Your task to perform on an android device: check google app version Image 0: 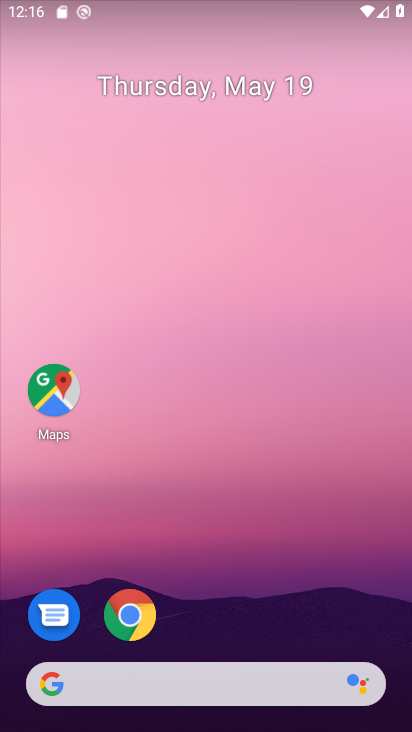
Step 0: drag from (236, 715) to (368, 0)
Your task to perform on an android device: check google app version Image 1: 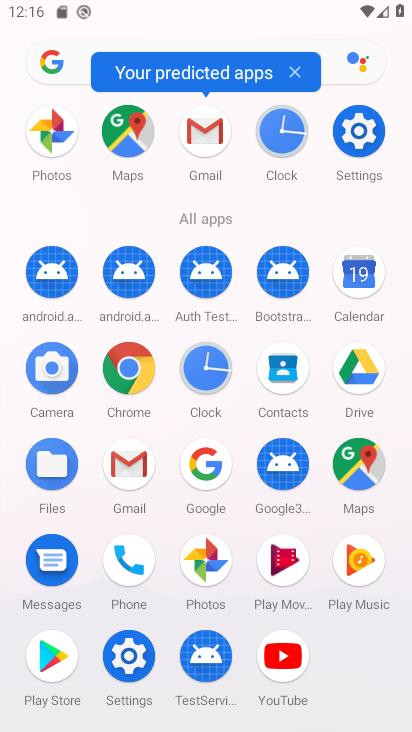
Step 1: click (124, 363)
Your task to perform on an android device: check google app version Image 2: 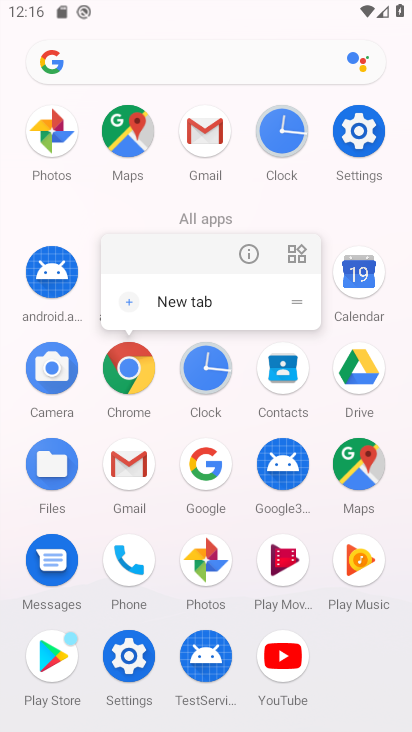
Step 2: click (129, 381)
Your task to perform on an android device: check google app version Image 3: 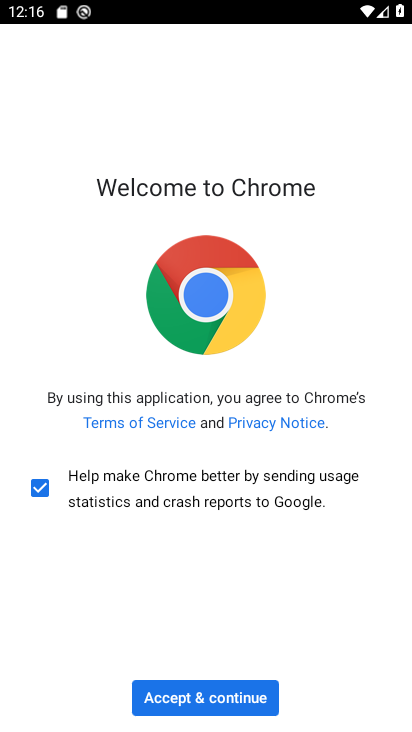
Step 3: click (202, 693)
Your task to perform on an android device: check google app version Image 4: 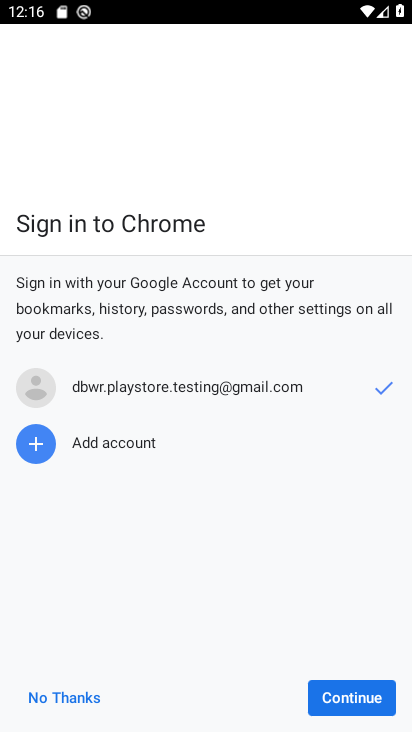
Step 4: click (352, 708)
Your task to perform on an android device: check google app version Image 5: 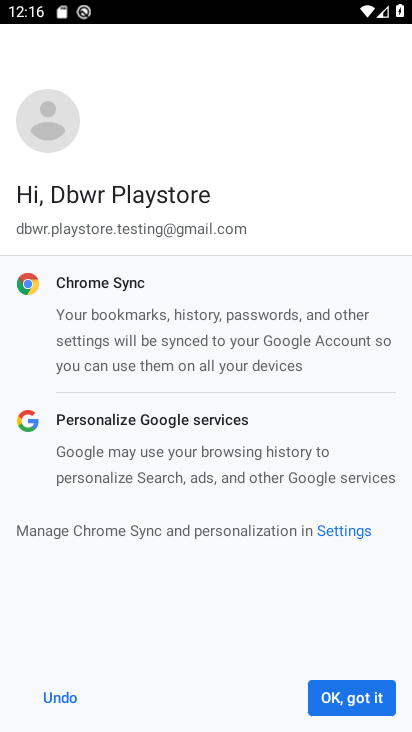
Step 5: click (348, 698)
Your task to perform on an android device: check google app version Image 6: 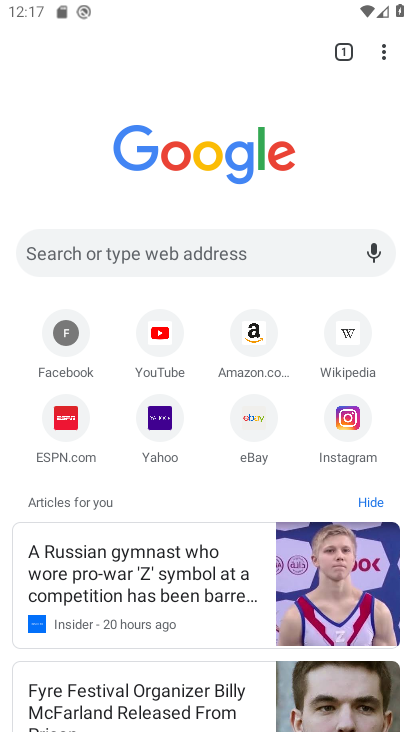
Step 6: click (387, 62)
Your task to perform on an android device: check google app version Image 7: 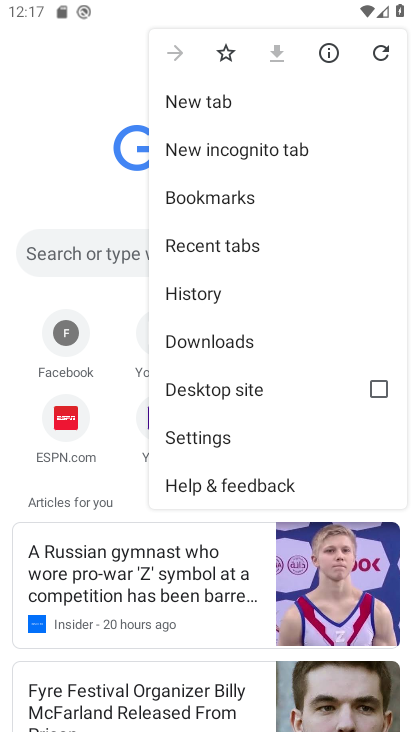
Step 7: click (198, 430)
Your task to perform on an android device: check google app version Image 8: 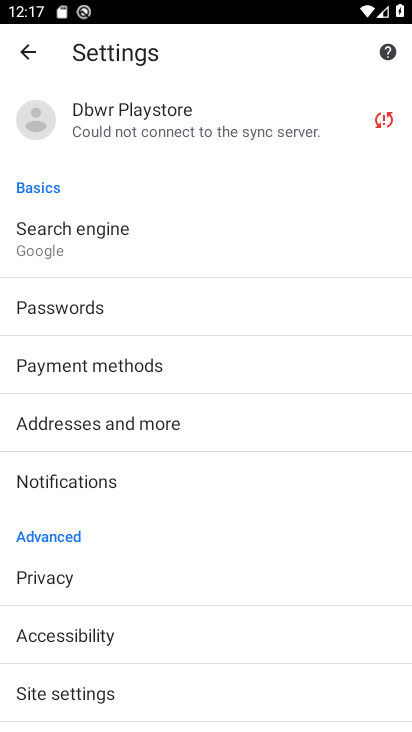
Step 8: drag from (135, 564) to (204, 160)
Your task to perform on an android device: check google app version Image 9: 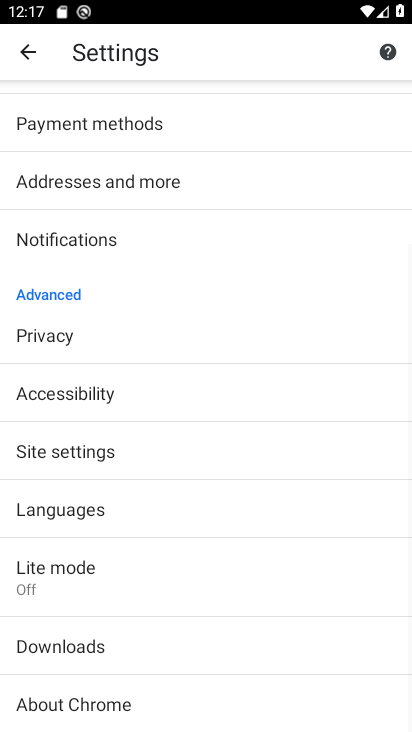
Step 9: drag from (95, 482) to (146, 327)
Your task to perform on an android device: check google app version Image 10: 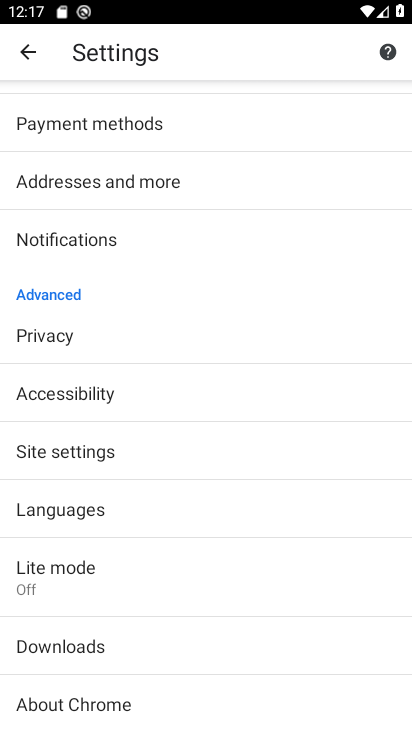
Step 10: click (95, 697)
Your task to perform on an android device: check google app version Image 11: 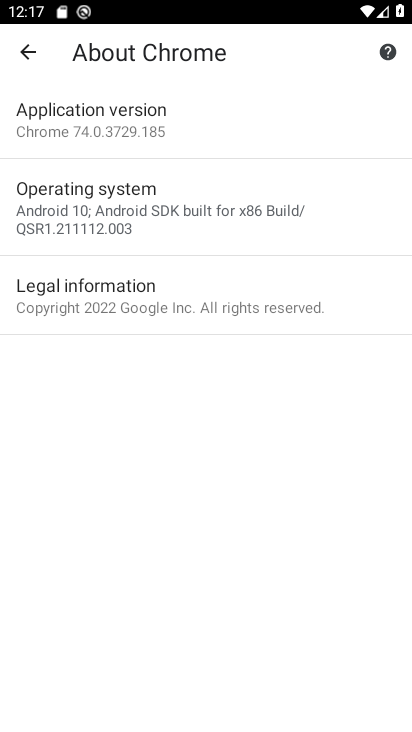
Step 11: click (145, 123)
Your task to perform on an android device: check google app version Image 12: 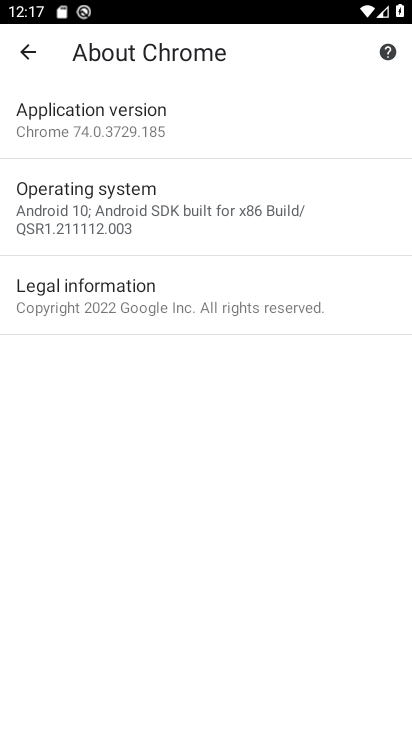
Step 12: task complete